Your task to perform on an android device: What is the recent news? Image 0: 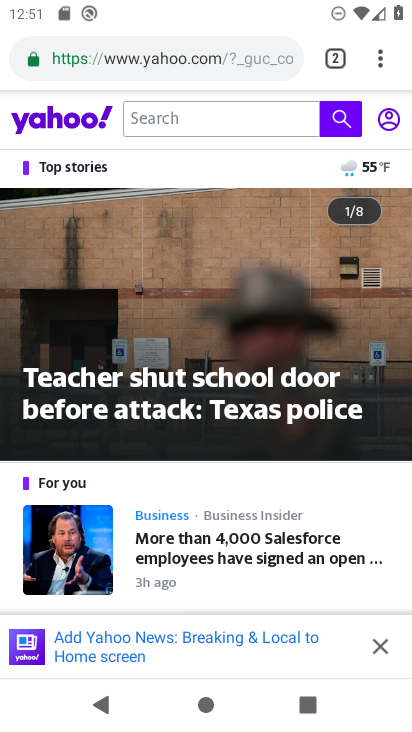
Step 0: press home button
Your task to perform on an android device: What is the recent news? Image 1: 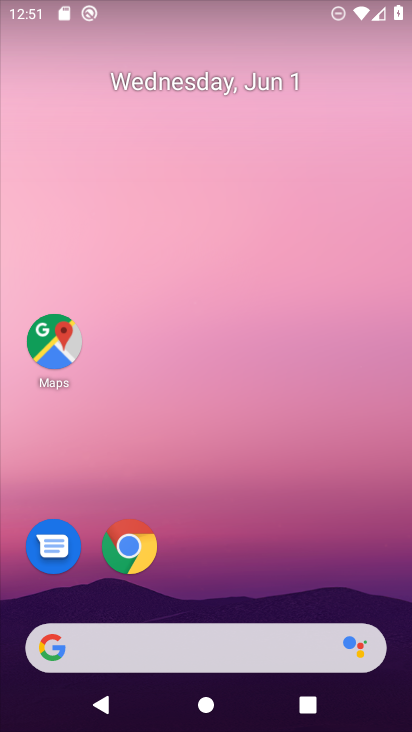
Step 1: click (134, 545)
Your task to perform on an android device: What is the recent news? Image 2: 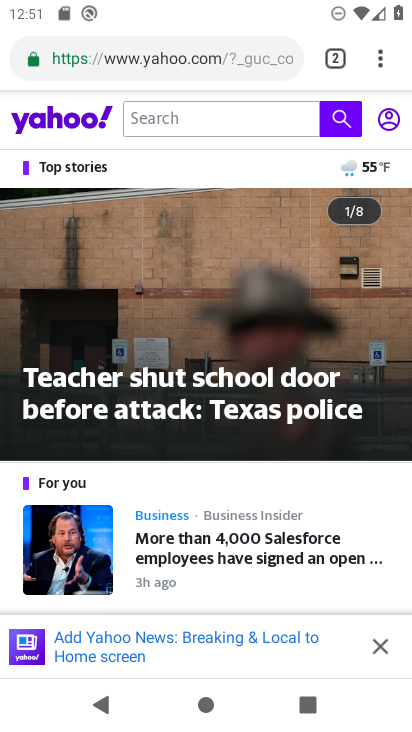
Step 2: click (341, 65)
Your task to perform on an android device: What is the recent news? Image 3: 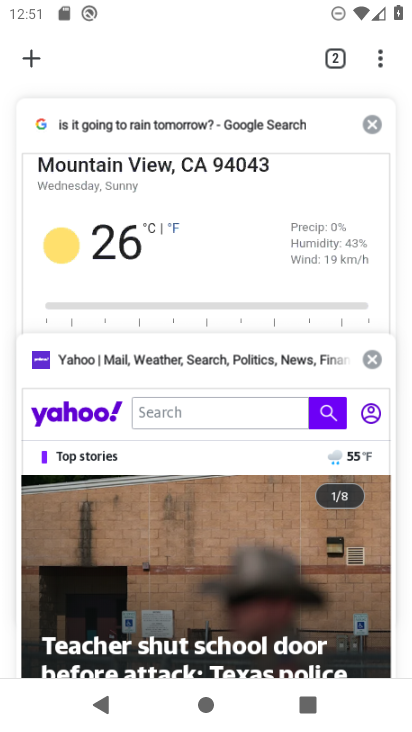
Step 3: click (35, 61)
Your task to perform on an android device: What is the recent news? Image 4: 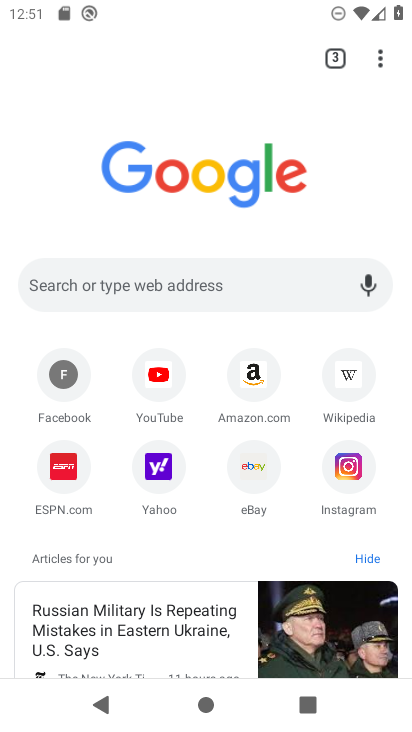
Step 4: click (91, 290)
Your task to perform on an android device: What is the recent news? Image 5: 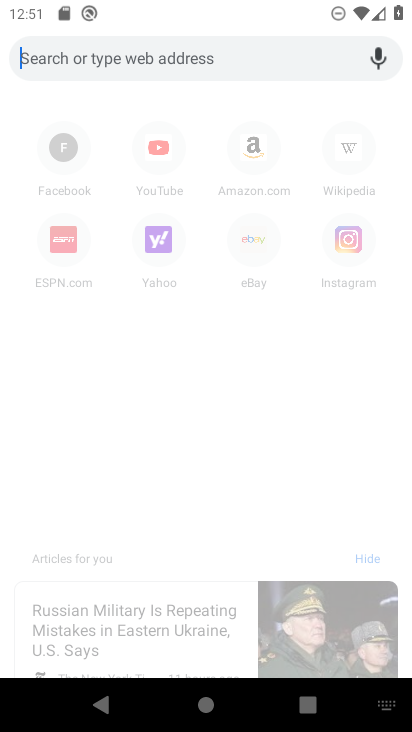
Step 5: type "what is the recent news?"
Your task to perform on an android device: What is the recent news? Image 6: 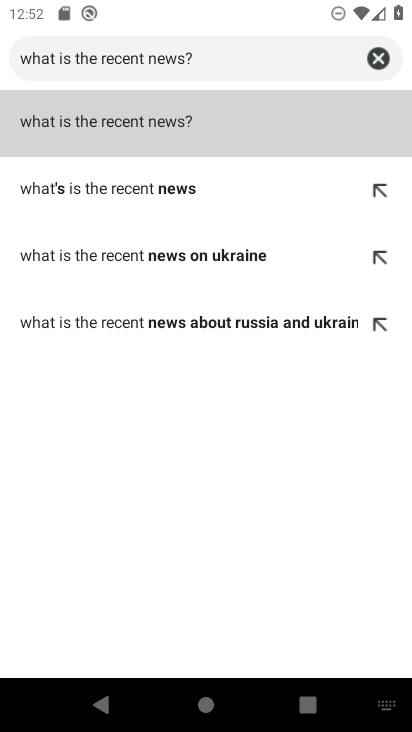
Step 6: click (145, 143)
Your task to perform on an android device: What is the recent news? Image 7: 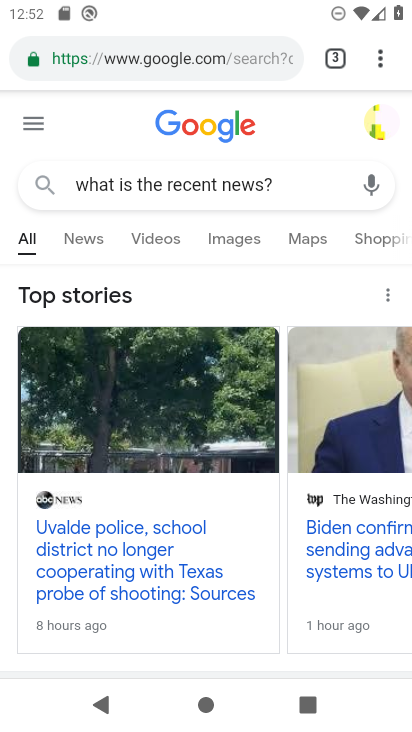
Step 7: click (87, 243)
Your task to perform on an android device: What is the recent news? Image 8: 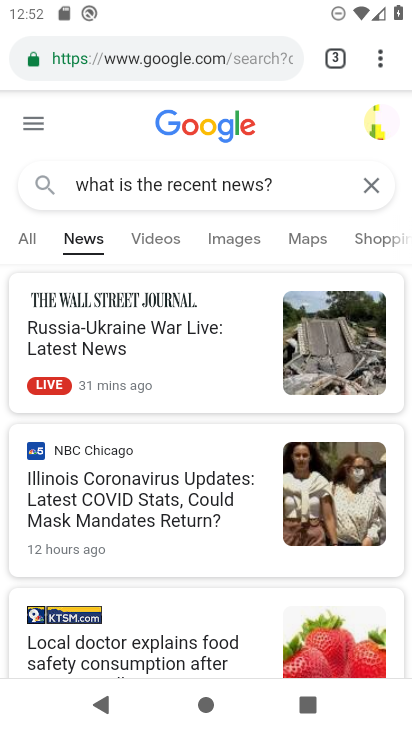
Step 8: task complete